Your task to perform on an android device: turn off priority inbox in the gmail app Image 0: 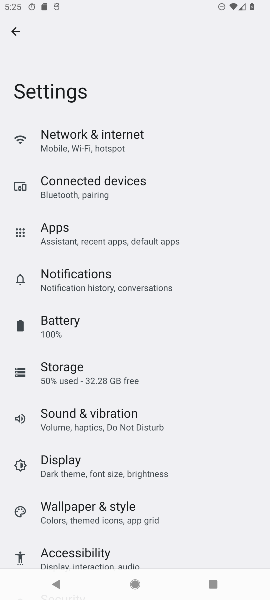
Step 0: click (18, 30)
Your task to perform on an android device: turn off priority inbox in the gmail app Image 1: 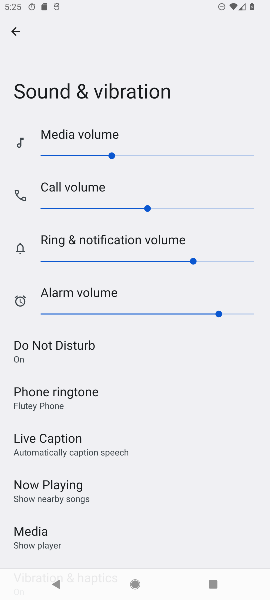
Step 1: click (18, 32)
Your task to perform on an android device: turn off priority inbox in the gmail app Image 2: 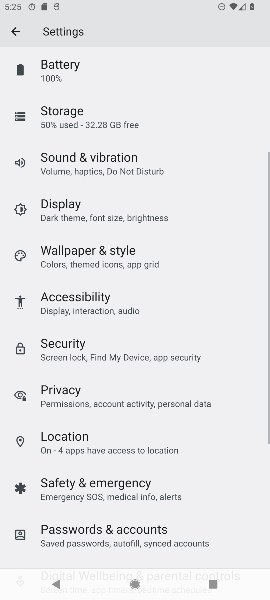
Step 2: click (11, 28)
Your task to perform on an android device: turn off priority inbox in the gmail app Image 3: 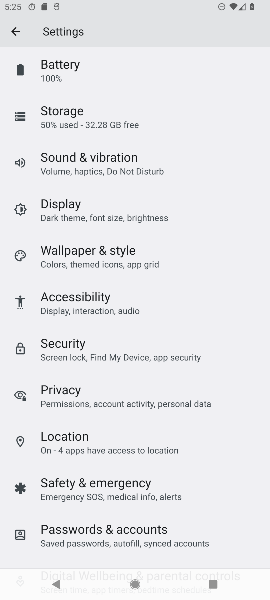
Step 3: click (11, 28)
Your task to perform on an android device: turn off priority inbox in the gmail app Image 4: 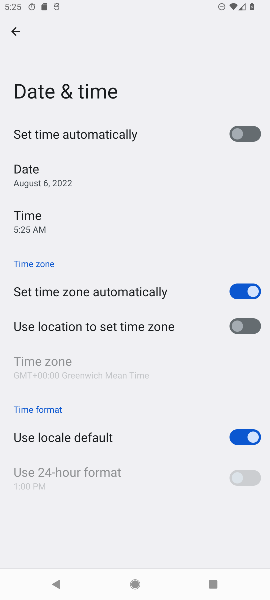
Step 4: click (16, 27)
Your task to perform on an android device: turn off priority inbox in the gmail app Image 5: 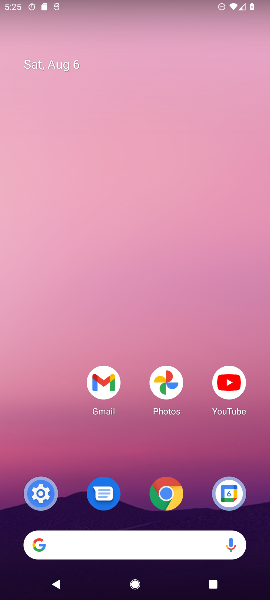
Step 5: drag from (163, 491) to (179, 54)
Your task to perform on an android device: turn off priority inbox in the gmail app Image 6: 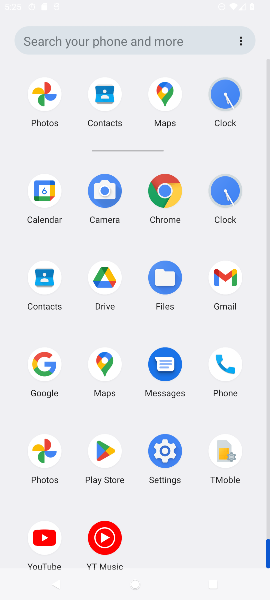
Step 6: drag from (135, 392) to (100, 143)
Your task to perform on an android device: turn off priority inbox in the gmail app Image 7: 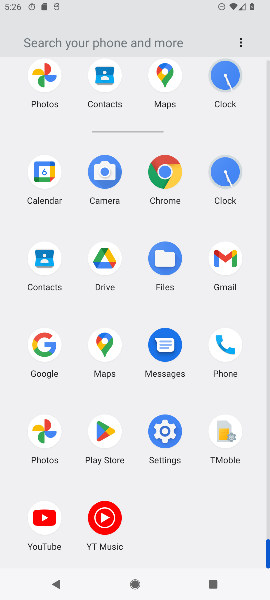
Step 7: click (222, 262)
Your task to perform on an android device: turn off priority inbox in the gmail app Image 8: 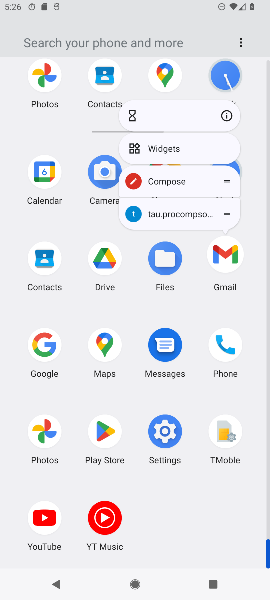
Step 8: click (221, 257)
Your task to perform on an android device: turn off priority inbox in the gmail app Image 9: 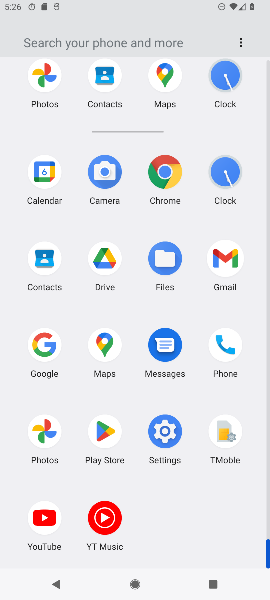
Step 9: click (223, 256)
Your task to perform on an android device: turn off priority inbox in the gmail app Image 10: 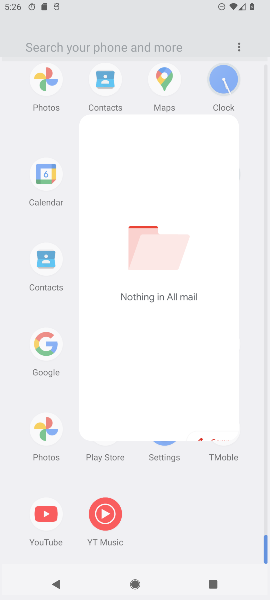
Step 10: click (224, 258)
Your task to perform on an android device: turn off priority inbox in the gmail app Image 11: 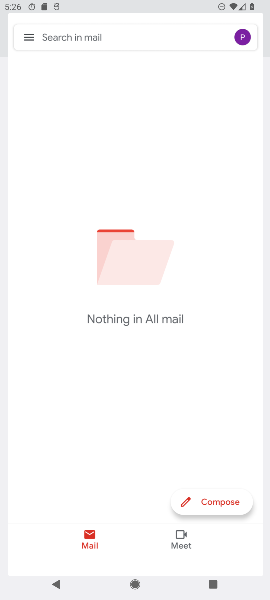
Step 11: click (223, 259)
Your task to perform on an android device: turn off priority inbox in the gmail app Image 12: 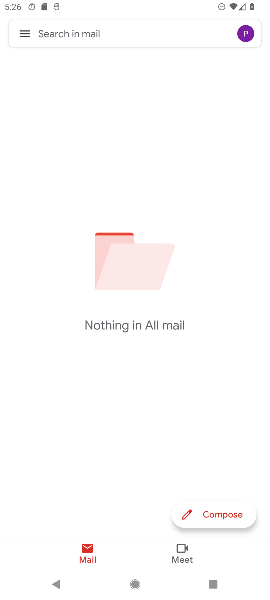
Step 12: click (21, 35)
Your task to perform on an android device: turn off priority inbox in the gmail app Image 13: 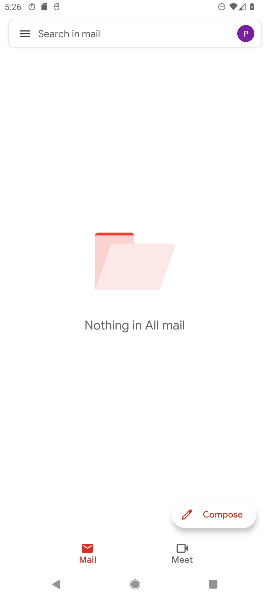
Step 13: click (21, 35)
Your task to perform on an android device: turn off priority inbox in the gmail app Image 14: 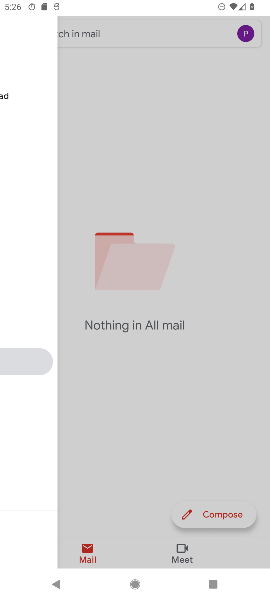
Step 14: click (21, 35)
Your task to perform on an android device: turn off priority inbox in the gmail app Image 15: 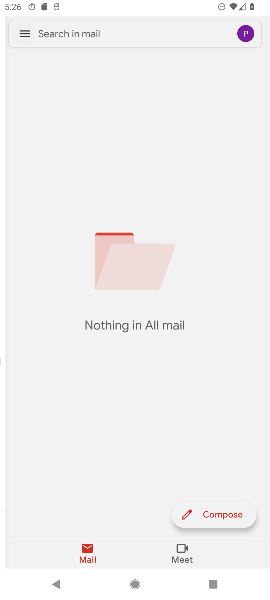
Step 15: click (21, 35)
Your task to perform on an android device: turn off priority inbox in the gmail app Image 16: 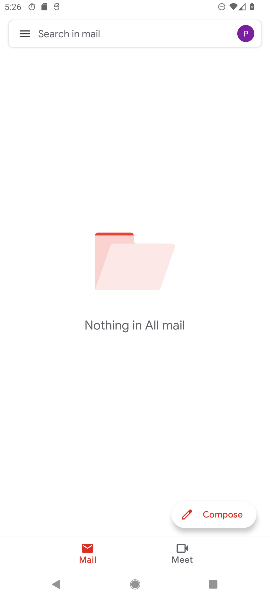
Step 16: click (21, 35)
Your task to perform on an android device: turn off priority inbox in the gmail app Image 17: 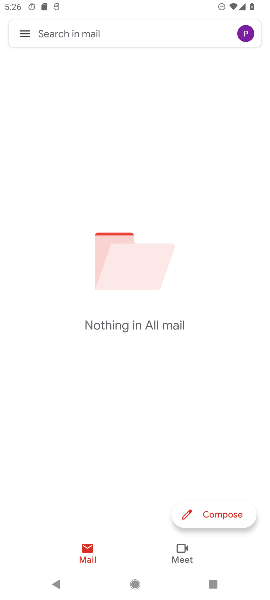
Step 17: click (20, 30)
Your task to perform on an android device: turn off priority inbox in the gmail app Image 18: 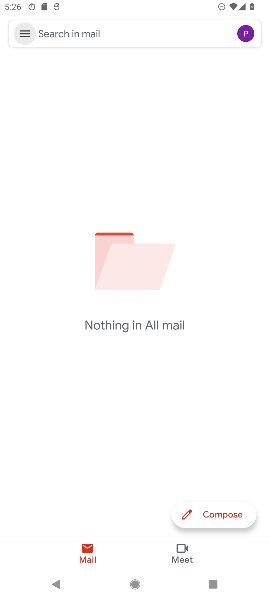
Step 18: click (26, 38)
Your task to perform on an android device: turn off priority inbox in the gmail app Image 19: 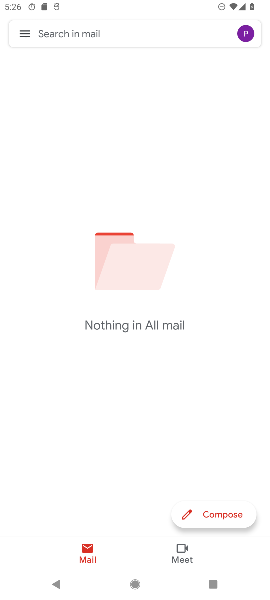
Step 19: click (26, 38)
Your task to perform on an android device: turn off priority inbox in the gmail app Image 20: 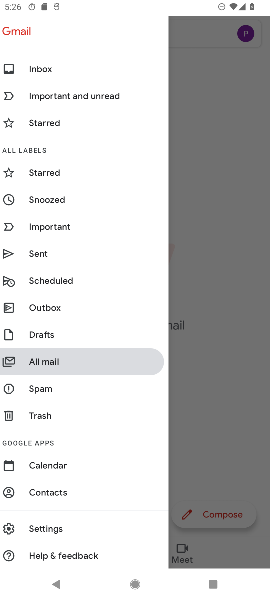
Step 20: click (26, 38)
Your task to perform on an android device: turn off priority inbox in the gmail app Image 21: 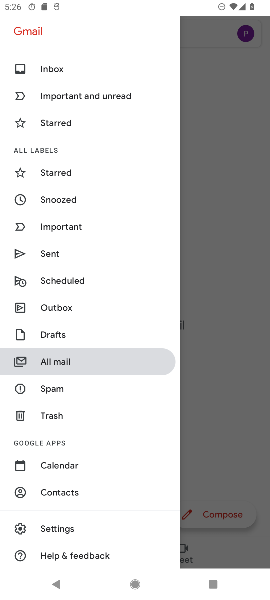
Step 21: drag from (81, 467) to (50, 178)
Your task to perform on an android device: turn off priority inbox in the gmail app Image 22: 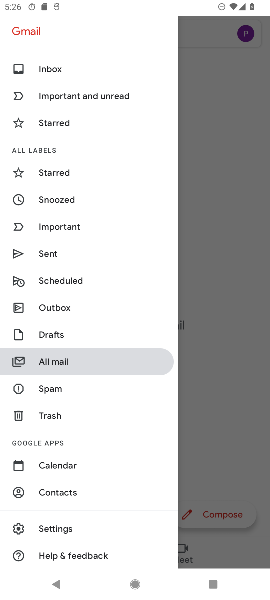
Step 22: drag from (68, 301) to (68, 130)
Your task to perform on an android device: turn off priority inbox in the gmail app Image 23: 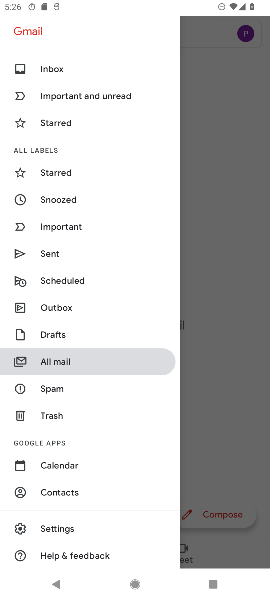
Step 23: click (57, 519)
Your task to perform on an android device: turn off priority inbox in the gmail app Image 24: 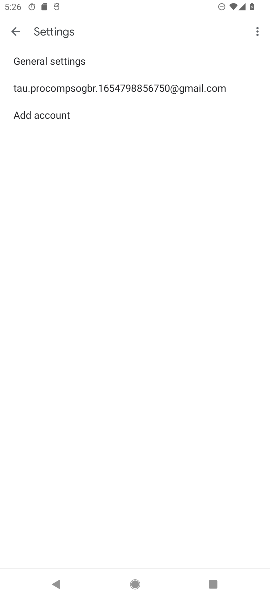
Step 24: click (62, 82)
Your task to perform on an android device: turn off priority inbox in the gmail app Image 25: 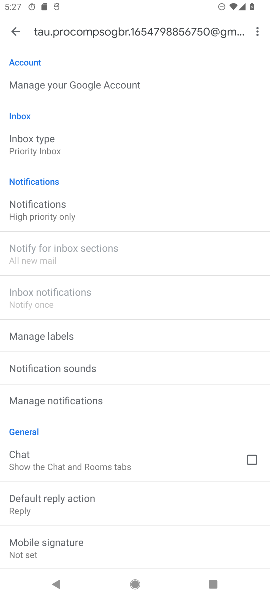
Step 25: click (30, 142)
Your task to perform on an android device: turn off priority inbox in the gmail app Image 26: 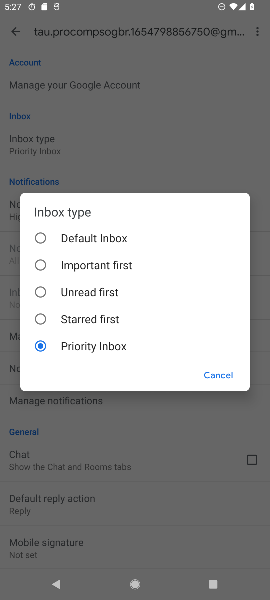
Step 26: click (39, 241)
Your task to perform on an android device: turn off priority inbox in the gmail app Image 27: 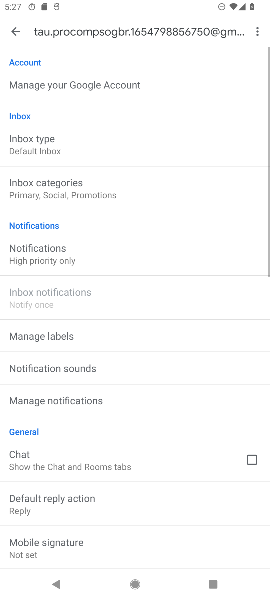
Step 27: task complete